Your task to perform on an android device: Open Google Image 0: 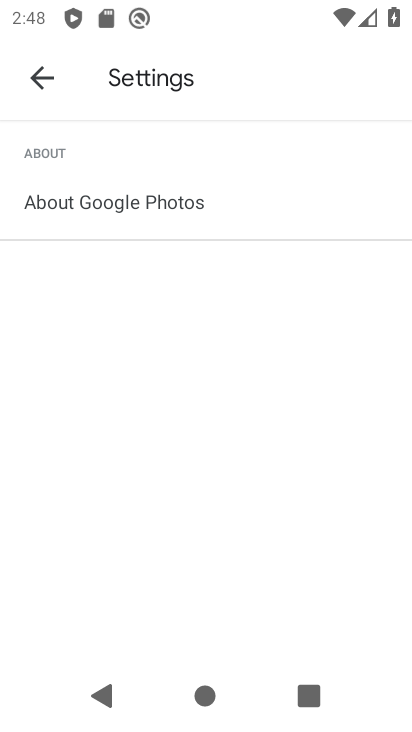
Step 0: press home button
Your task to perform on an android device: Open Google Image 1: 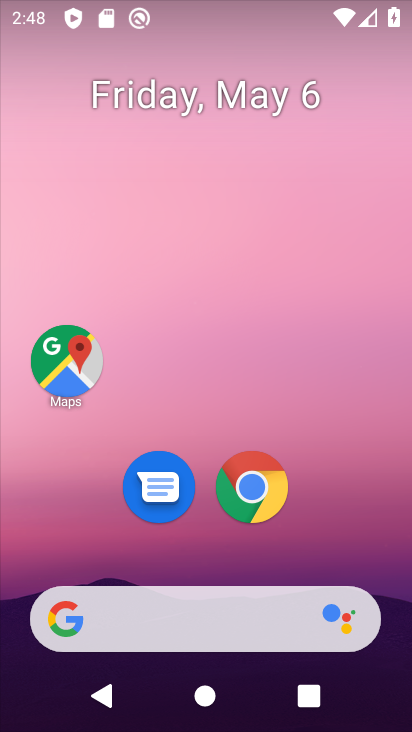
Step 1: drag from (327, 563) to (359, 169)
Your task to perform on an android device: Open Google Image 2: 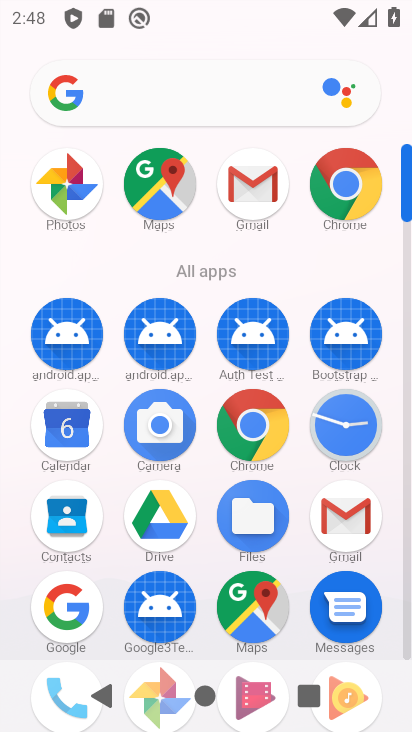
Step 2: drag from (303, 568) to (295, 241)
Your task to perform on an android device: Open Google Image 3: 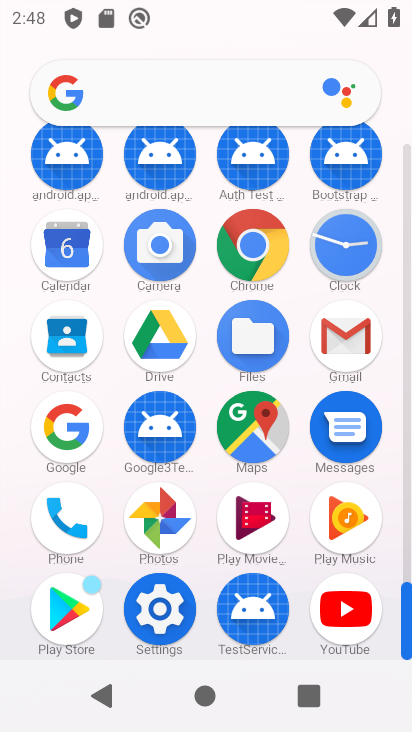
Step 3: click (55, 443)
Your task to perform on an android device: Open Google Image 4: 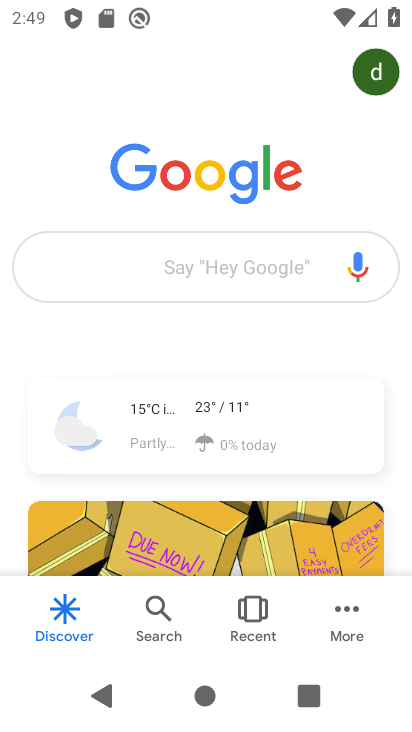
Step 4: task complete